Your task to perform on an android device: Open eBay Image 0: 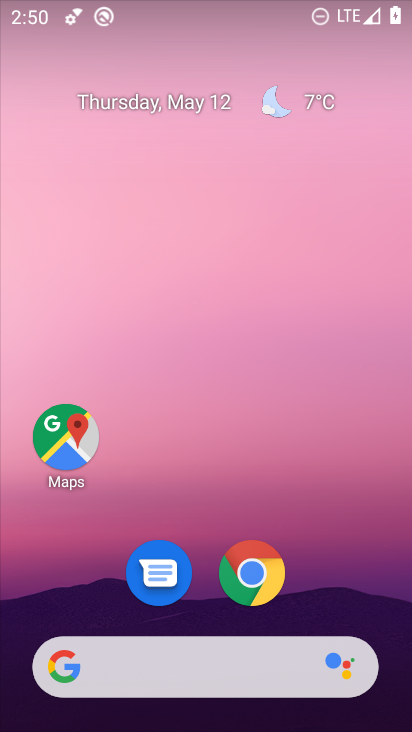
Step 0: drag from (390, 433) to (244, 119)
Your task to perform on an android device: Open eBay Image 1: 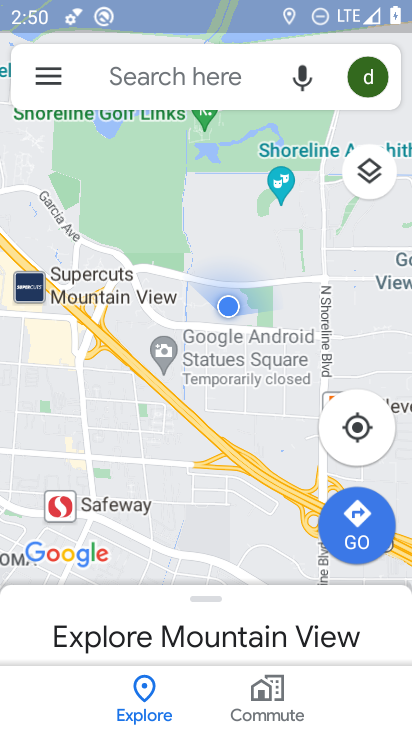
Step 1: press back button
Your task to perform on an android device: Open eBay Image 2: 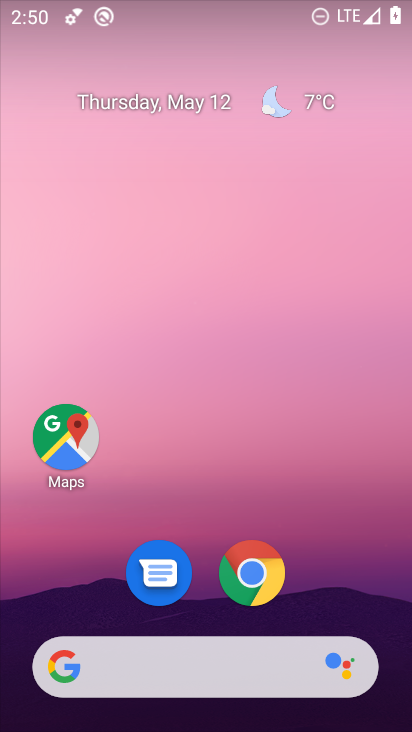
Step 2: drag from (332, 555) to (144, 81)
Your task to perform on an android device: Open eBay Image 3: 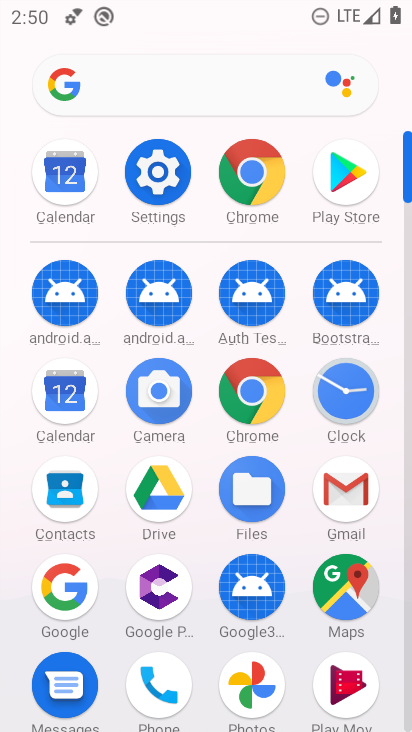
Step 3: click (254, 180)
Your task to perform on an android device: Open eBay Image 4: 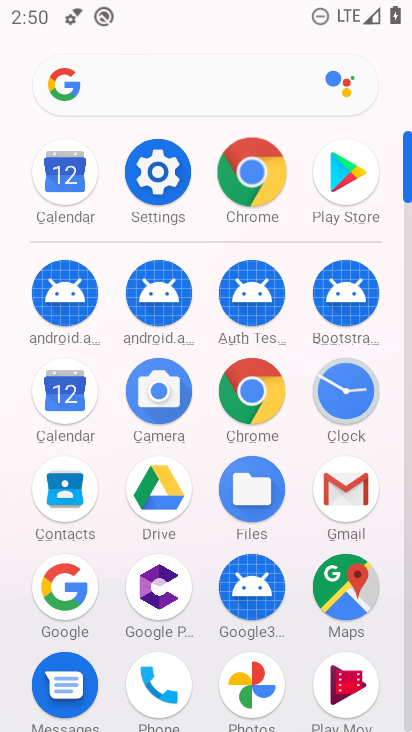
Step 4: click (254, 180)
Your task to perform on an android device: Open eBay Image 5: 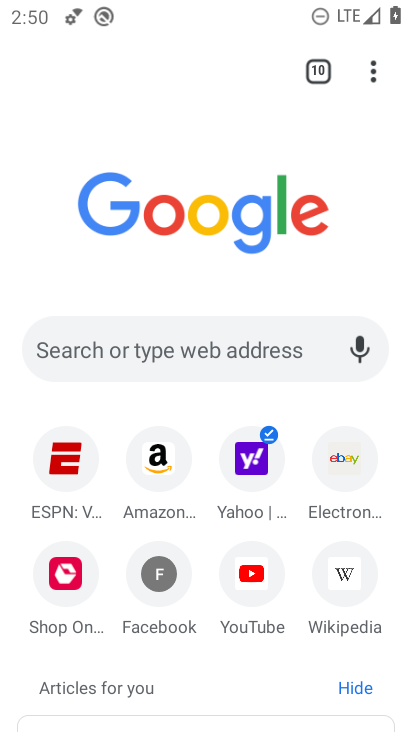
Step 5: click (338, 462)
Your task to perform on an android device: Open eBay Image 6: 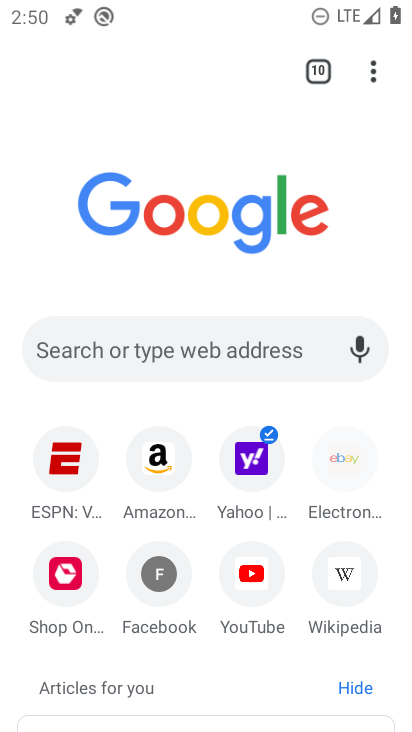
Step 6: click (339, 461)
Your task to perform on an android device: Open eBay Image 7: 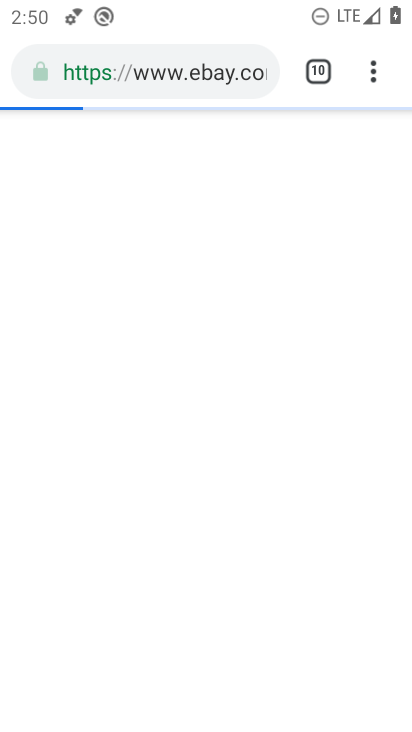
Step 7: click (339, 463)
Your task to perform on an android device: Open eBay Image 8: 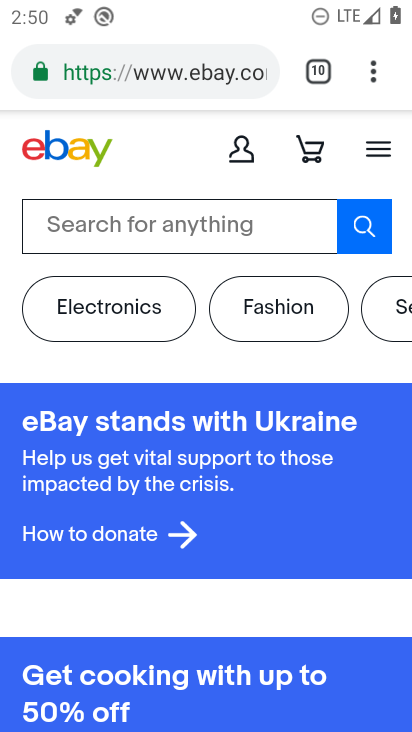
Step 8: task complete